Your task to perform on an android device: open a new tab in the chrome app Image 0: 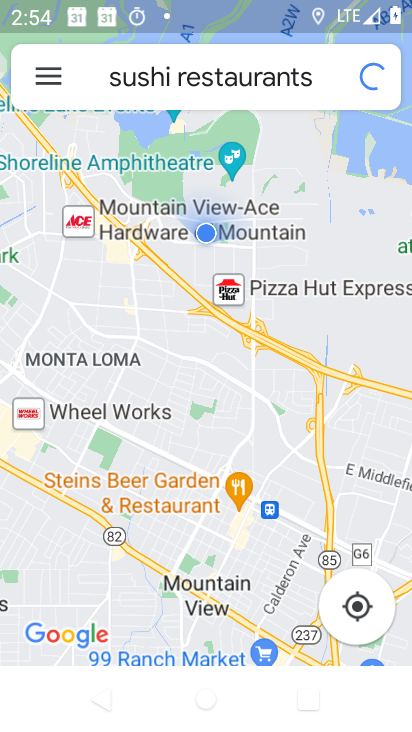
Step 0: press home button
Your task to perform on an android device: open a new tab in the chrome app Image 1: 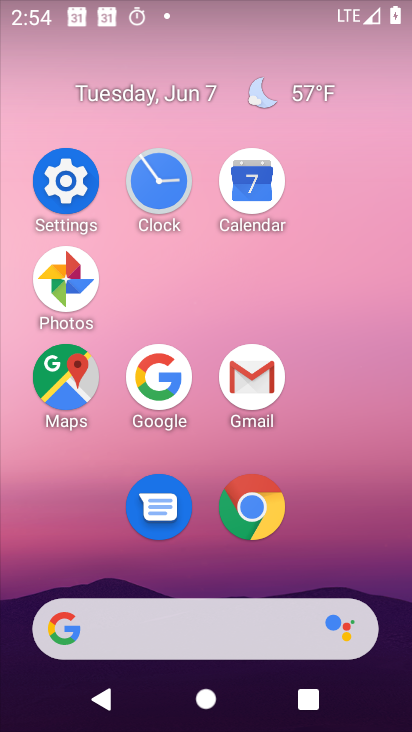
Step 1: click (269, 491)
Your task to perform on an android device: open a new tab in the chrome app Image 2: 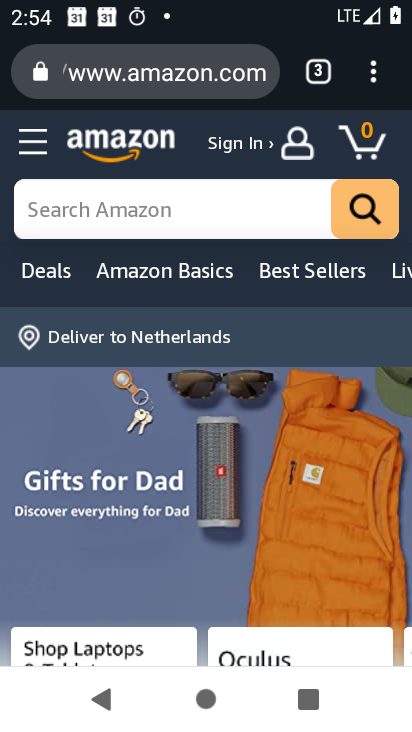
Step 2: click (322, 67)
Your task to perform on an android device: open a new tab in the chrome app Image 3: 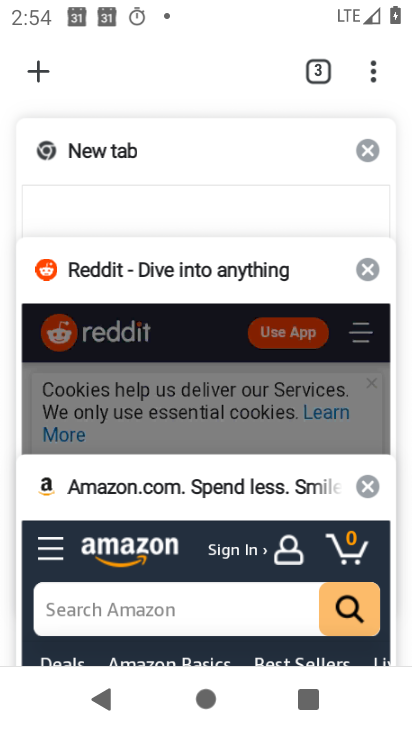
Step 3: click (57, 54)
Your task to perform on an android device: open a new tab in the chrome app Image 4: 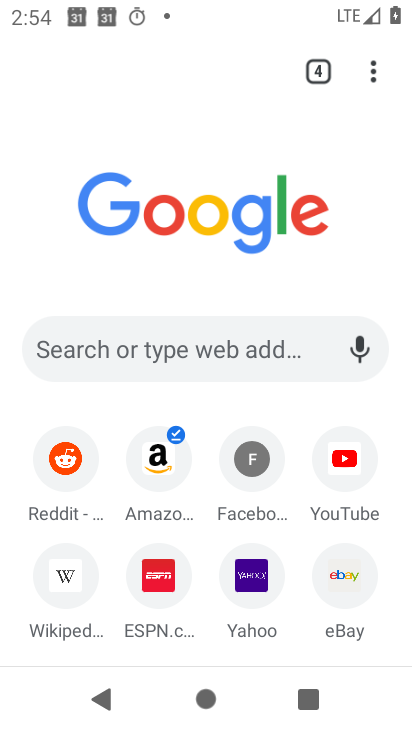
Step 4: task complete